Your task to perform on an android device: clear all cookies in the chrome app Image 0: 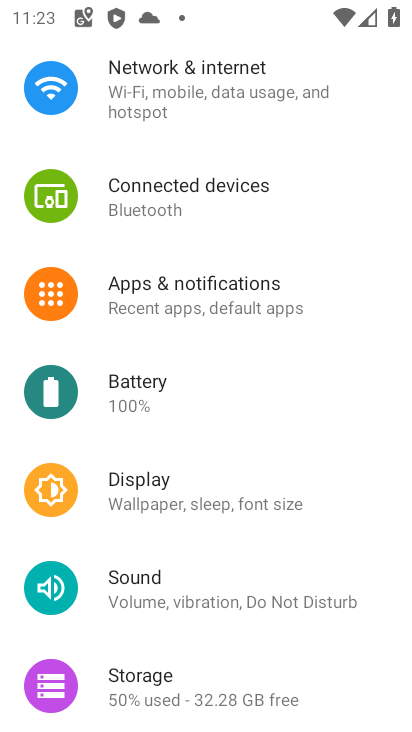
Step 0: press home button
Your task to perform on an android device: clear all cookies in the chrome app Image 1: 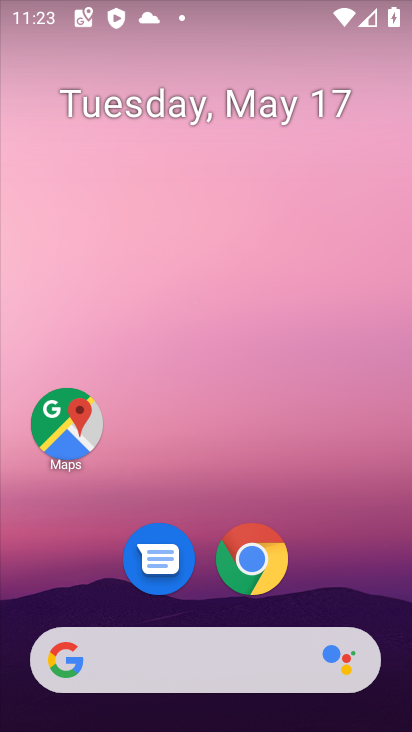
Step 1: click (251, 577)
Your task to perform on an android device: clear all cookies in the chrome app Image 2: 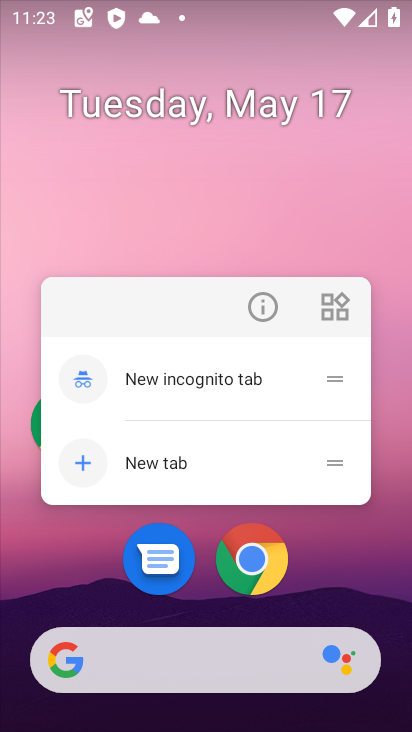
Step 2: click (244, 564)
Your task to perform on an android device: clear all cookies in the chrome app Image 3: 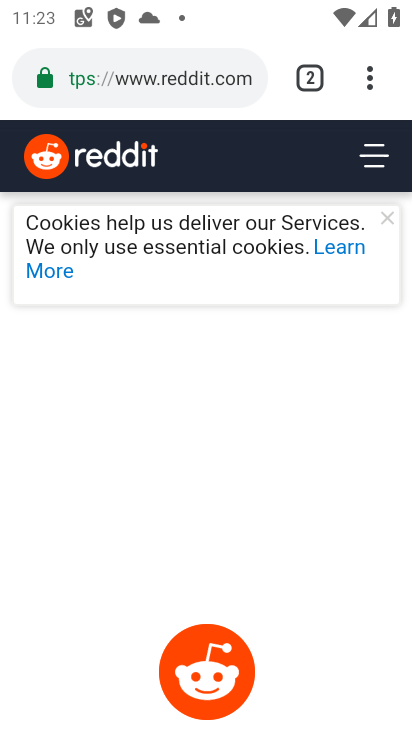
Step 3: click (371, 76)
Your task to perform on an android device: clear all cookies in the chrome app Image 4: 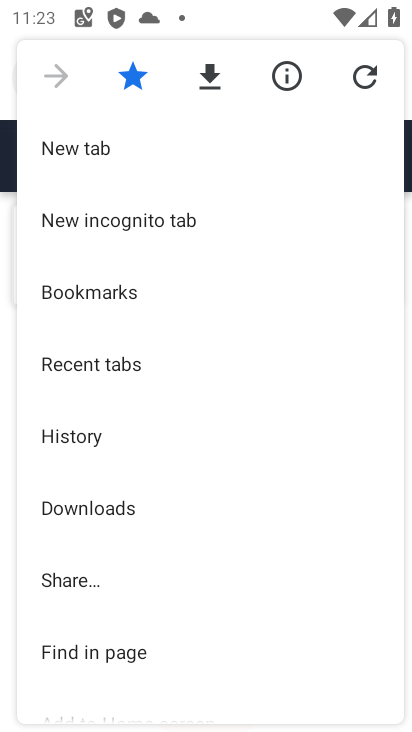
Step 4: click (95, 446)
Your task to perform on an android device: clear all cookies in the chrome app Image 5: 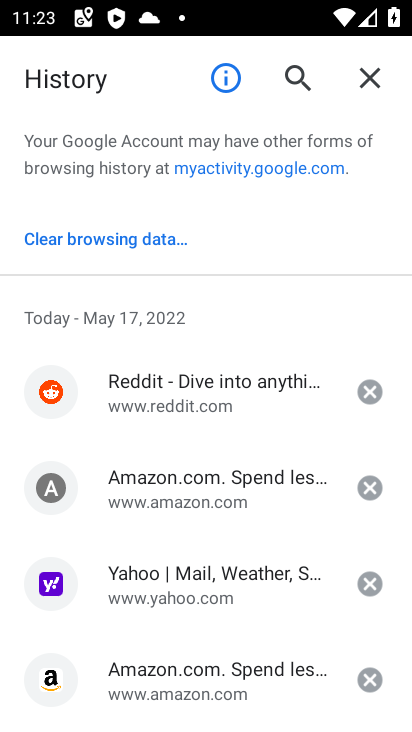
Step 5: click (130, 257)
Your task to perform on an android device: clear all cookies in the chrome app Image 6: 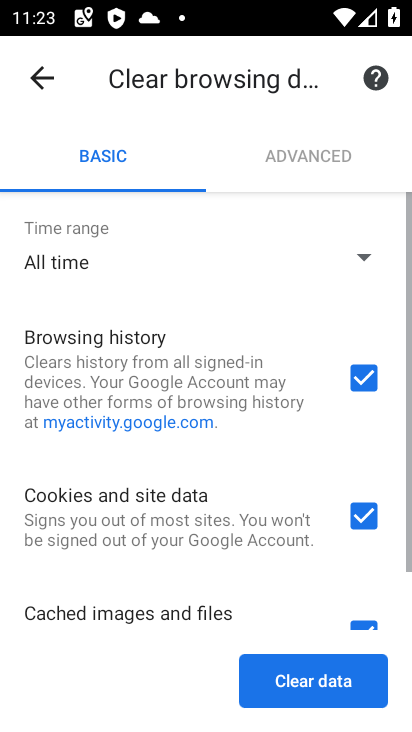
Step 6: click (268, 686)
Your task to perform on an android device: clear all cookies in the chrome app Image 7: 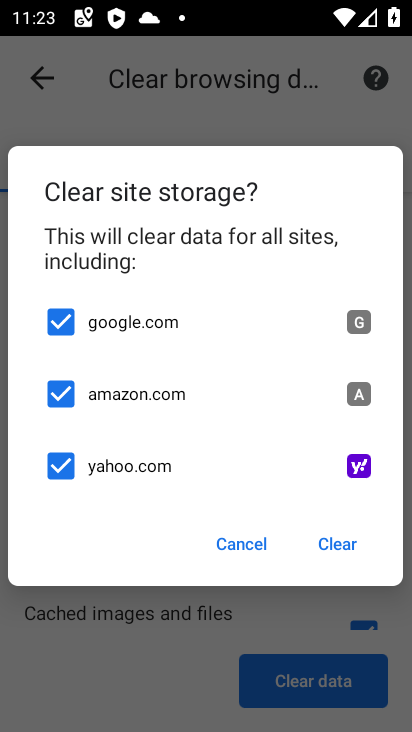
Step 7: click (355, 538)
Your task to perform on an android device: clear all cookies in the chrome app Image 8: 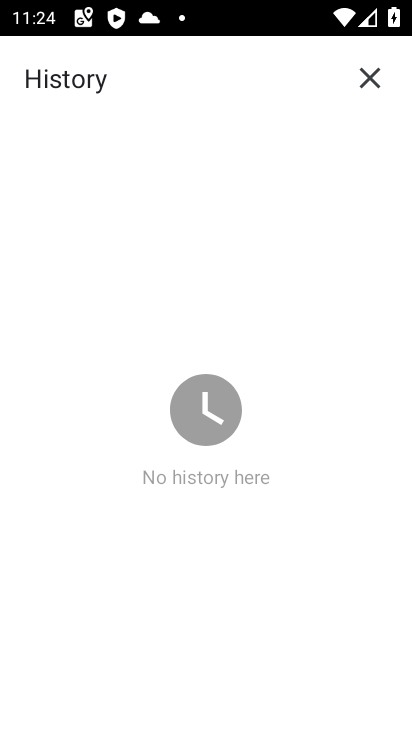
Step 8: task complete